Your task to perform on an android device: Go to ESPN.com Image 0: 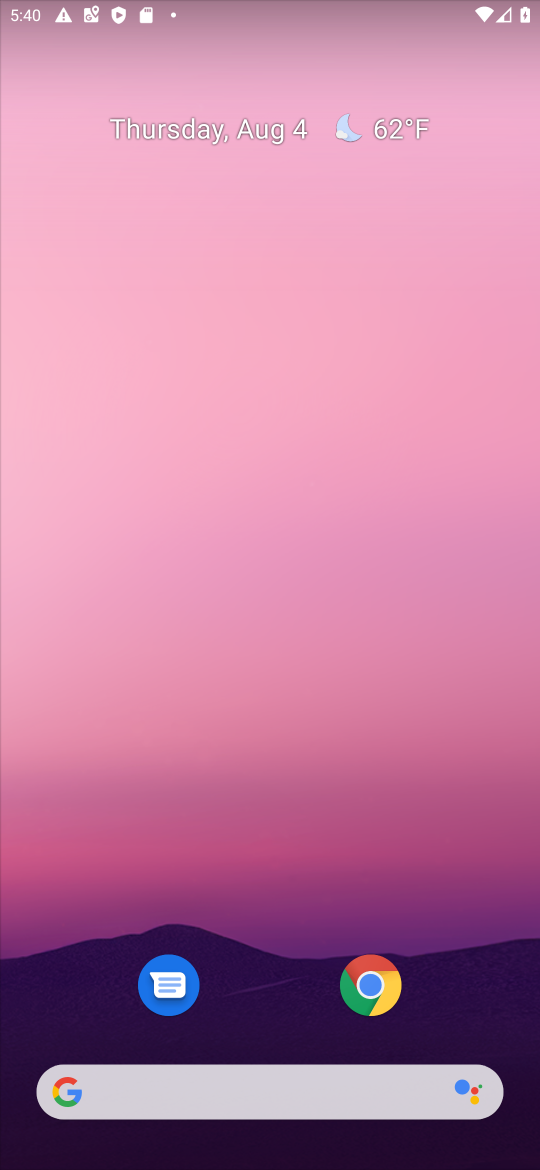
Step 0: drag from (280, 1095) to (305, 97)
Your task to perform on an android device: Go to ESPN.com Image 1: 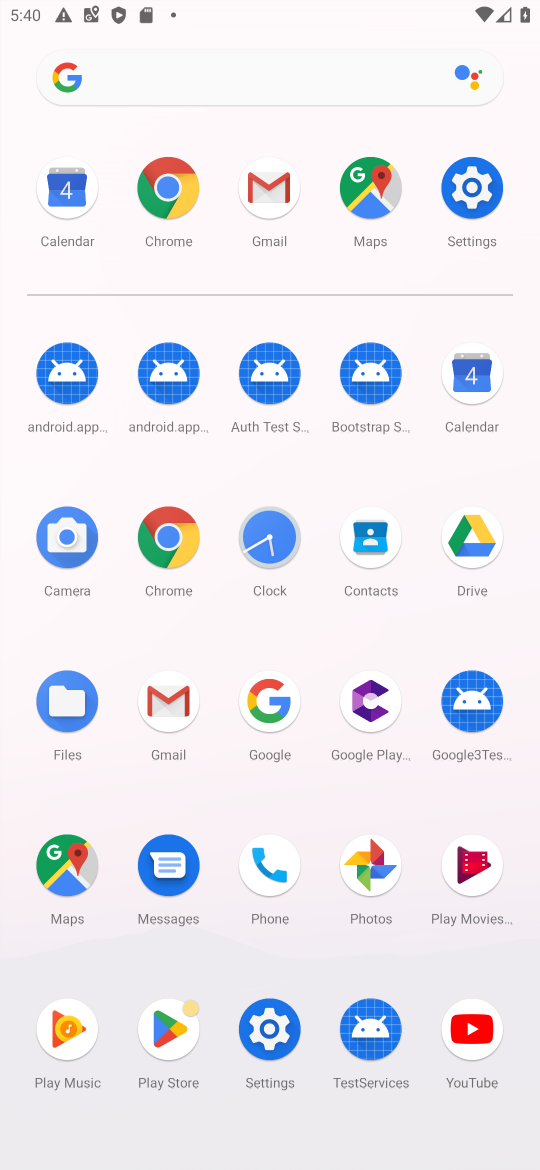
Step 1: click (151, 168)
Your task to perform on an android device: Go to ESPN.com Image 2: 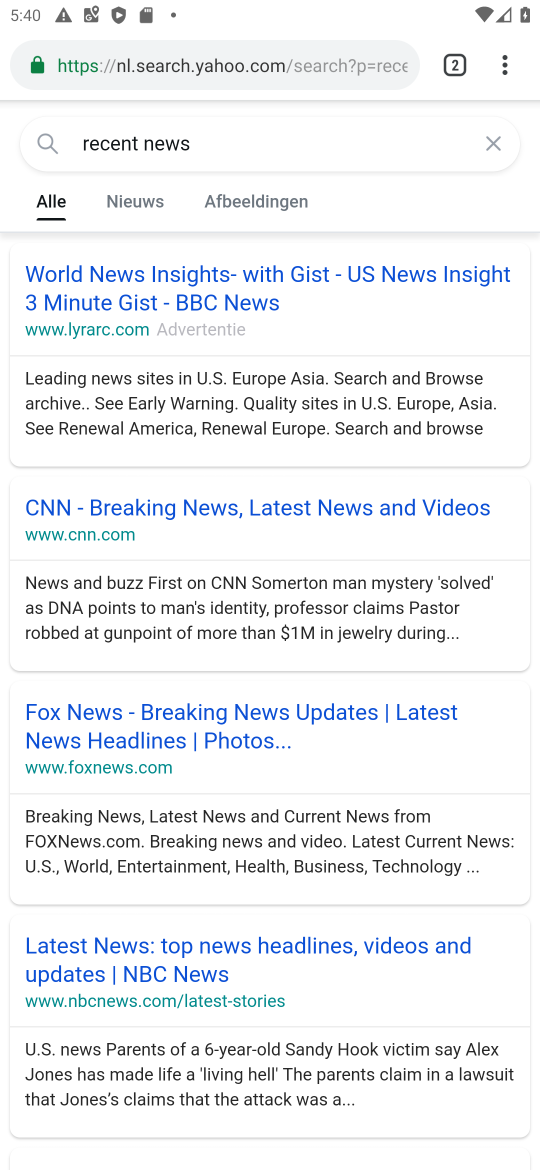
Step 2: click (223, 60)
Your task to perform on an android device: Go to ESPN.com Image 3: 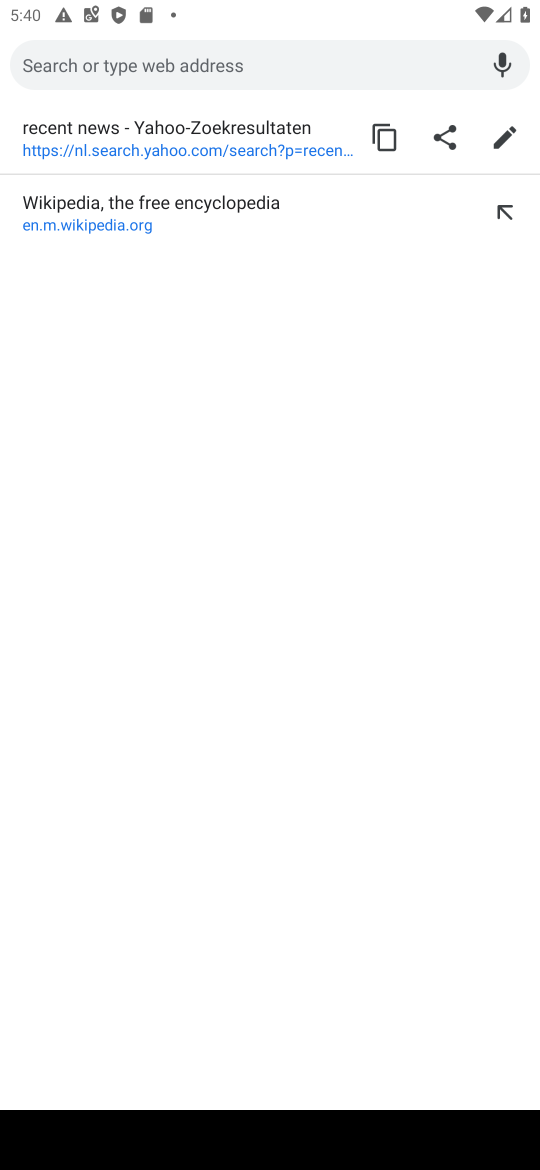
Step 3: type "espn.com"
Your task to perform on an android device: Go to ESPN.com Image 4: 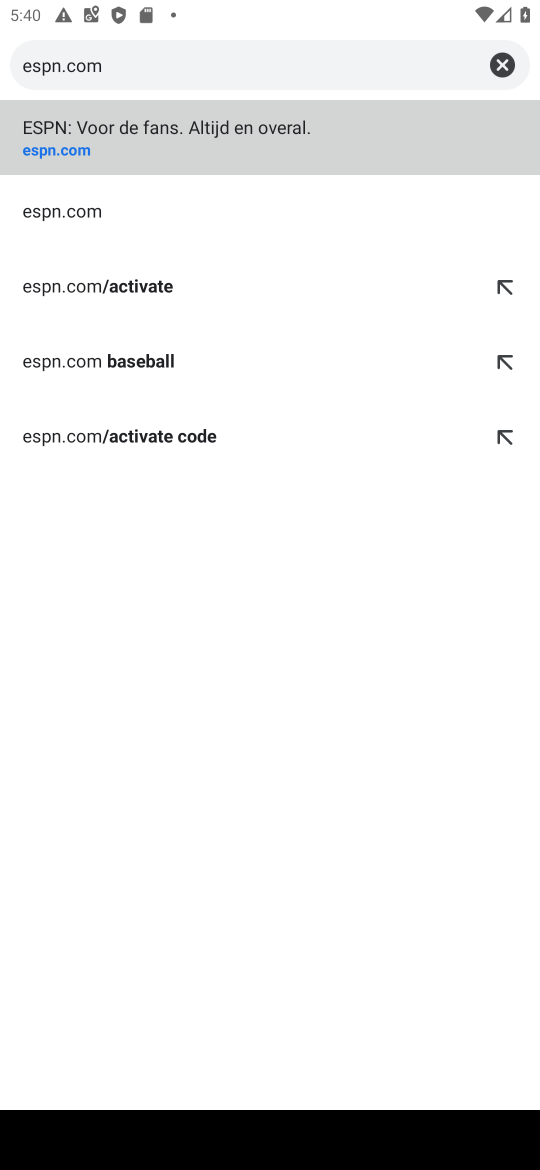
Step 4: click (359, 143)
Your task to perform on an android device: Go to ESPN.com Image 5: 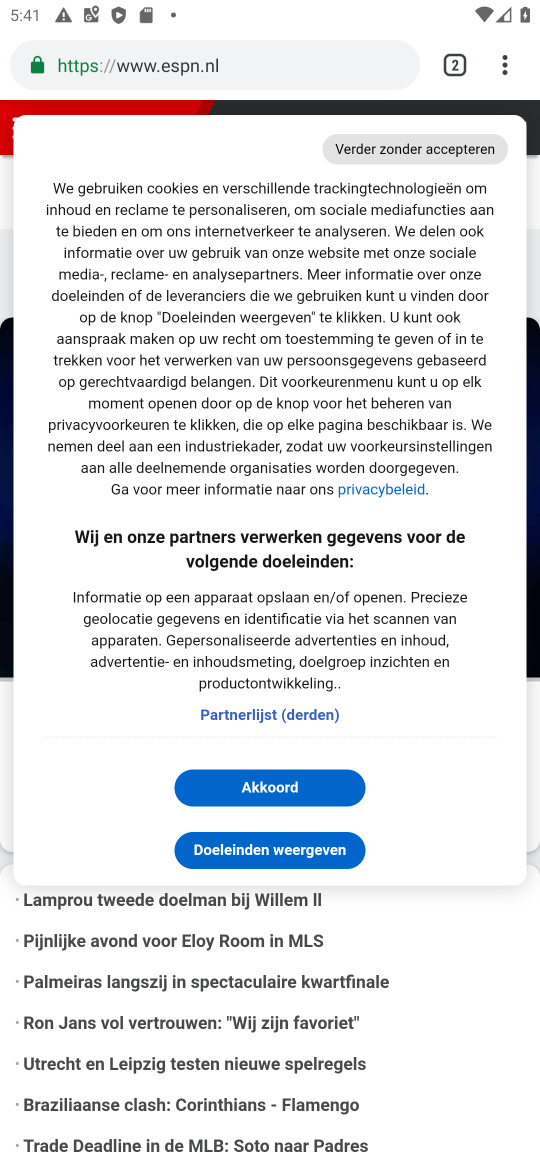
Step 5: task complete